Your task to perform on an android device: Open sound settings Image 0: 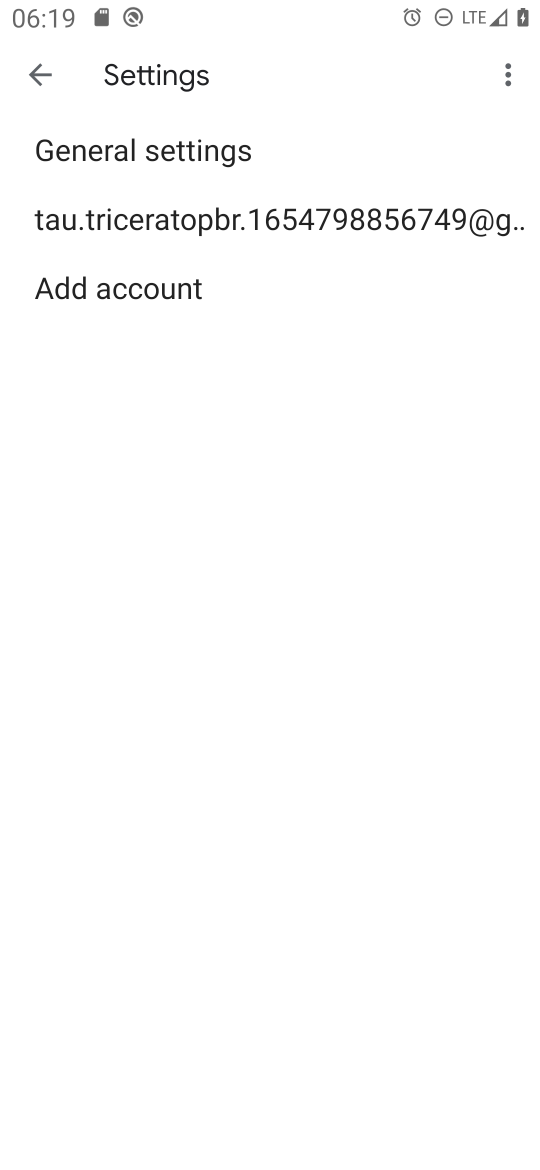
Step 0: press home button
Your task to perform on an android device: Open sound settings Image 1: 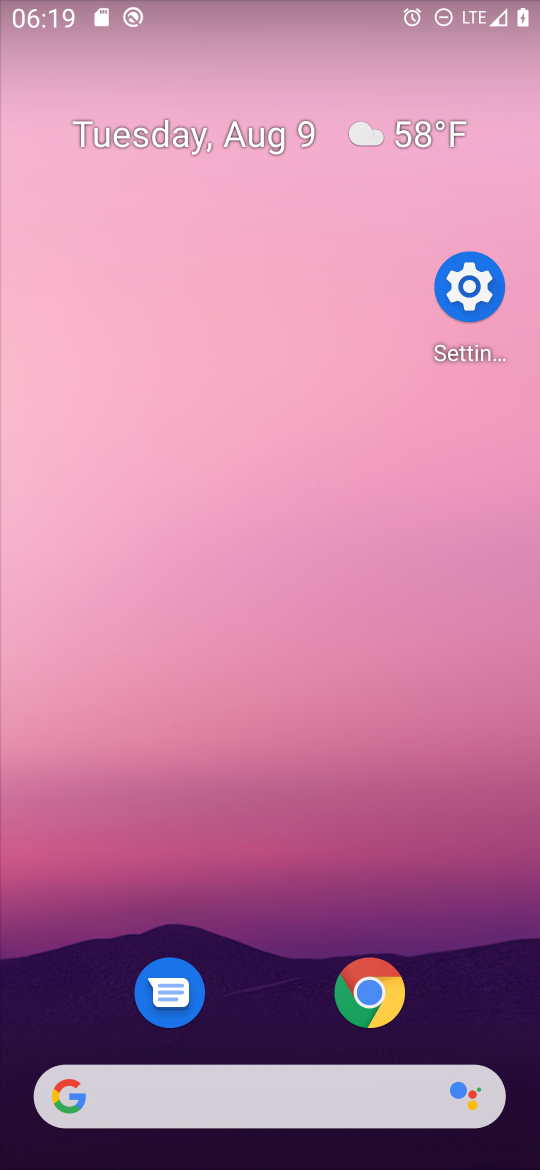
Step 1: drag from (199, 1078) to (140, 622)
Your task to perform on an android device: Open sound settings Image 2: 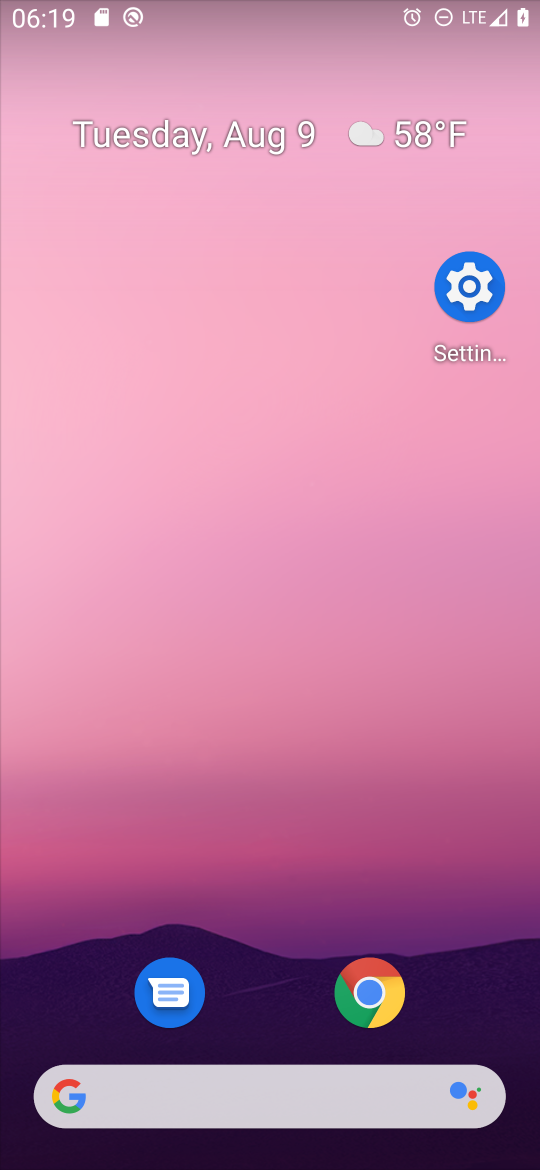
Step 2: drag from (280, 1087) to (199, 0)
Your task to perform on an android device: Open sound settings Image 3: 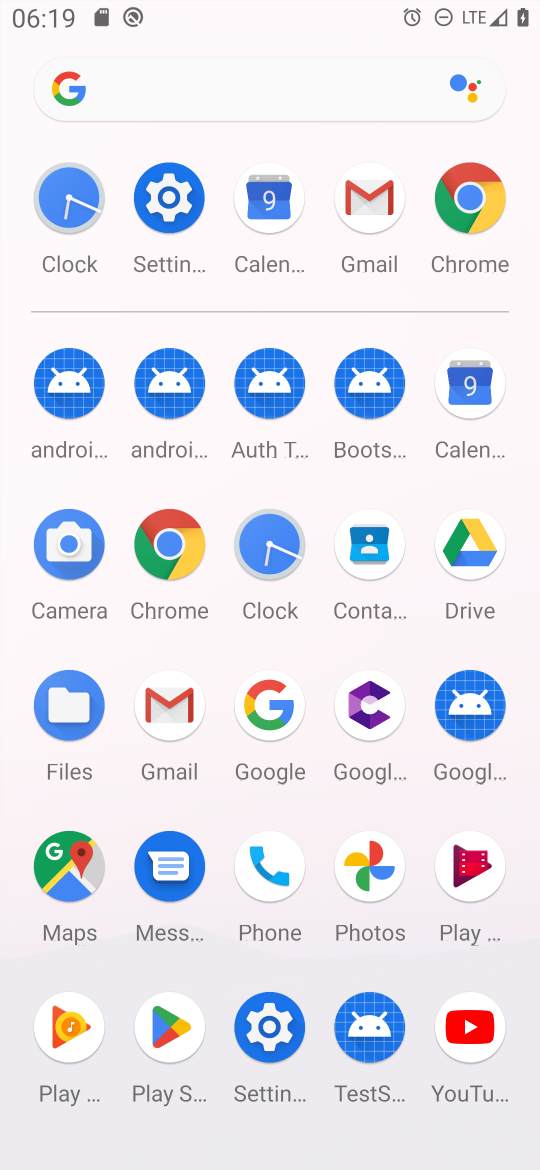
Step 3: click (170, 191)
Your task to perform on an android device: Open sound settings Image 4: 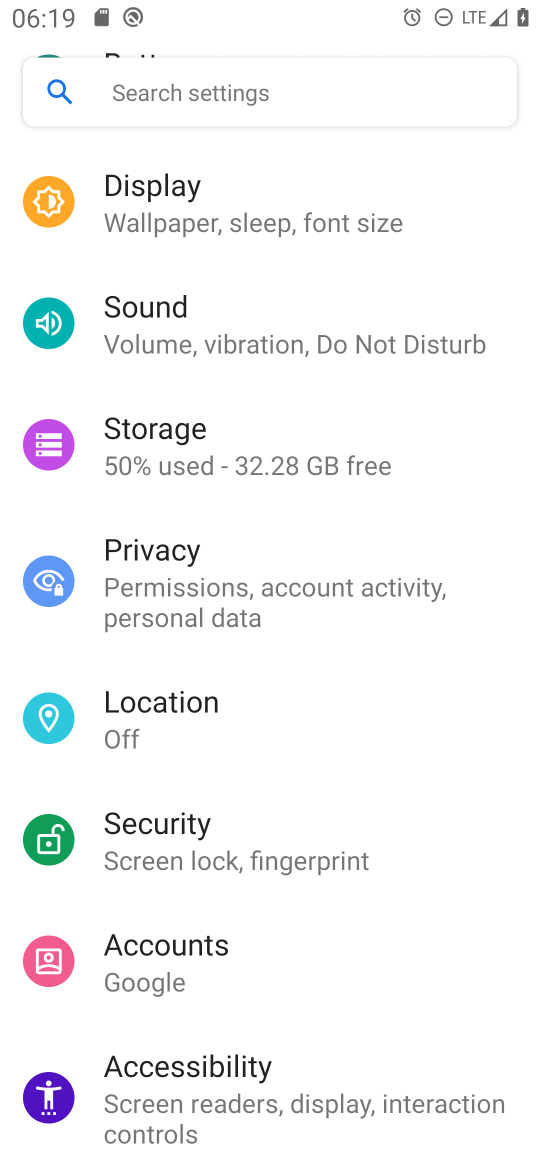
Step 4: click (171, 323)
Your task to perform on an android device: Open sound settings Image 5: 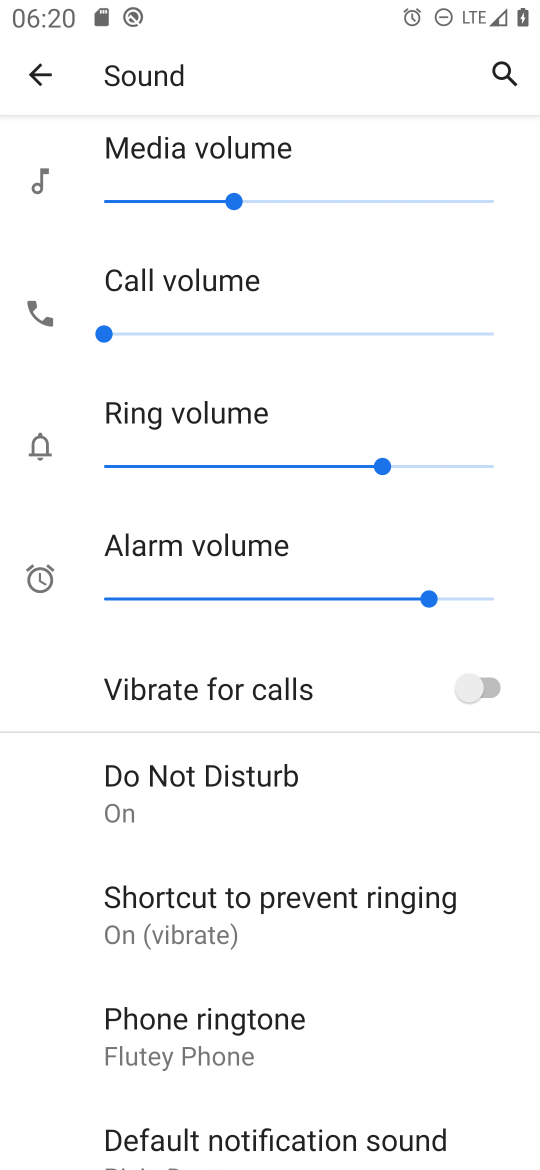
Step 5: task complete